Your task to perform on an android device: toggle improve location accuracy Image 0: 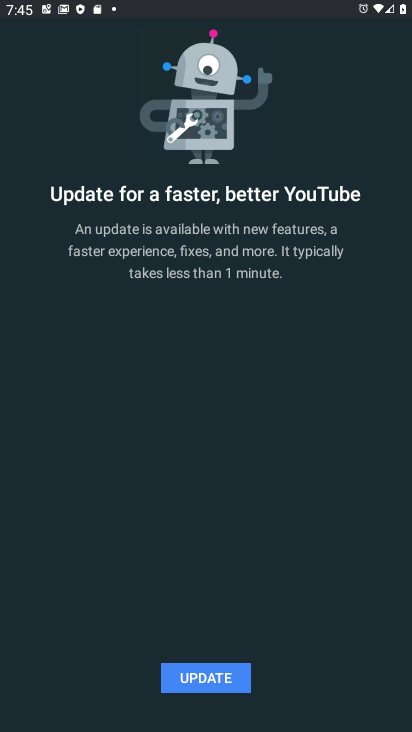
Step 0: press home button
Your task to perform on an android device: toggle improve location accuracy Image 1: 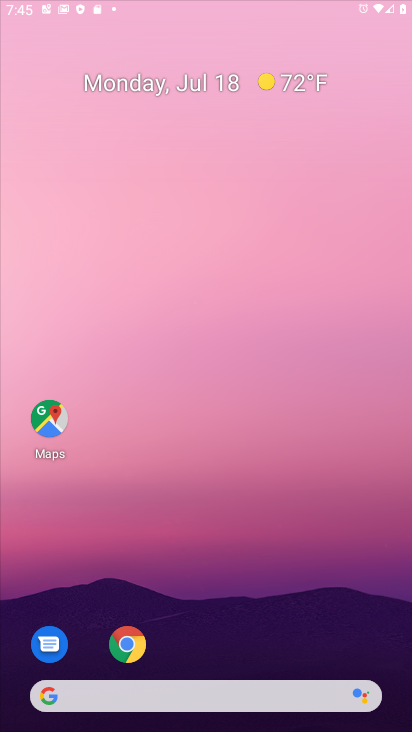
Step 1: drag from (332, 685) to (163, 78)
Your task to perform on an android device: toggle improve location accuracy Image 2: 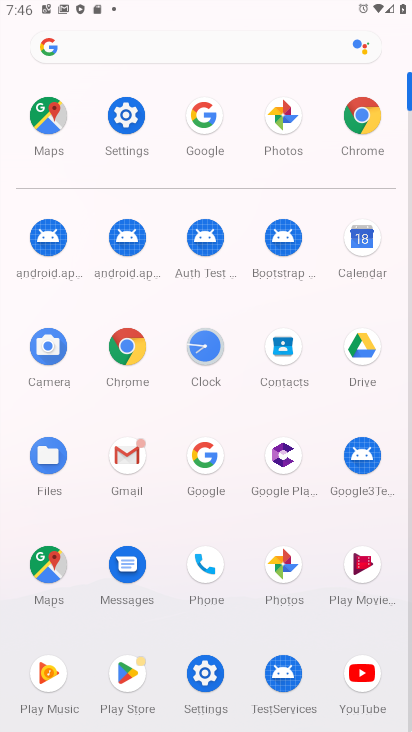
Step 2: click (196, 691)
Your task to perform on an android device: toggle improve location accuracy Image 3: 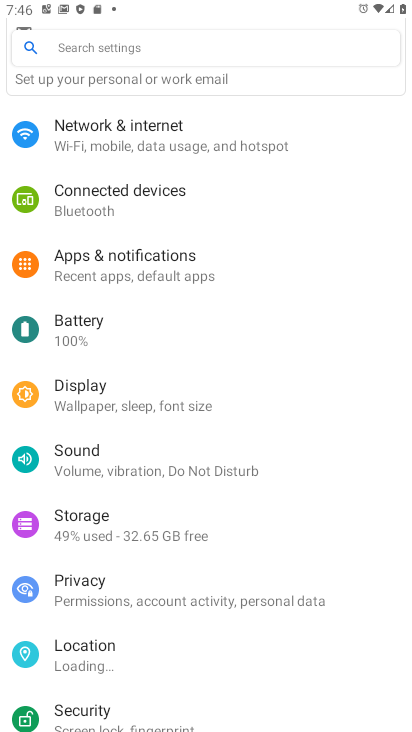
Step 3: click (109, 652)
Your task to perform on an android device: toggle improve location accuracy Image 4: 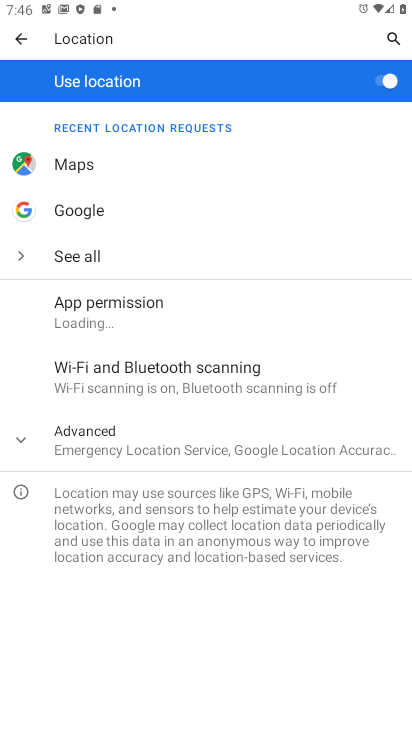
Step 4: click (161, 433)
Your task to perform on an android device: toggle improve location accuracy Image 5: 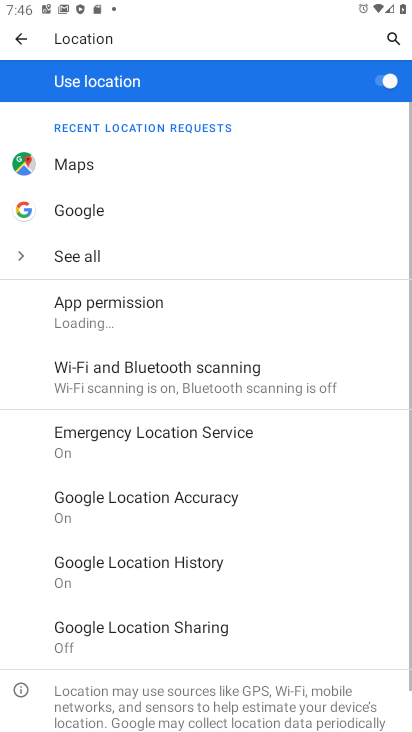
Step 5: click (169, 489)
Your task to perform on an android device: toggle improve location accuracy Image 6: 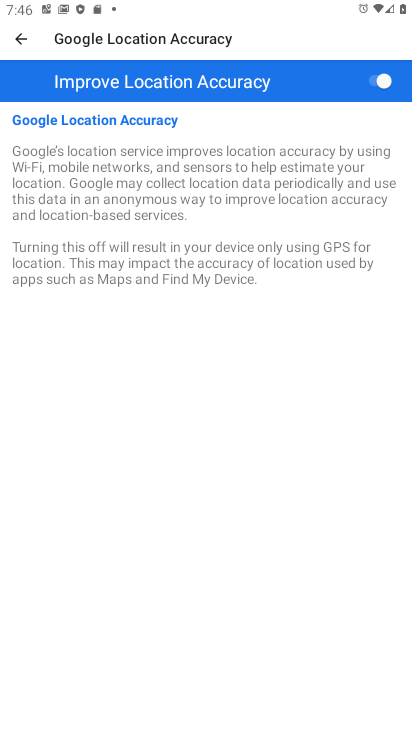
Step 6: click (357, 83)
Your task to perform on an android device: toggle improve location accuracy Image 7: 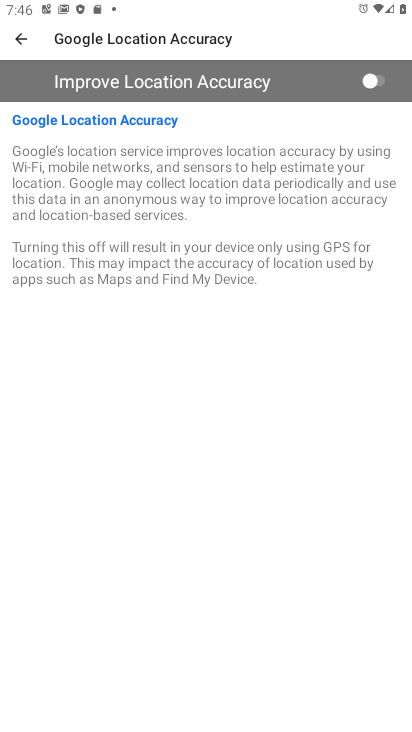
Step 7: task complete